Your task to perform on an android device: toggle sleep mode Image 0: 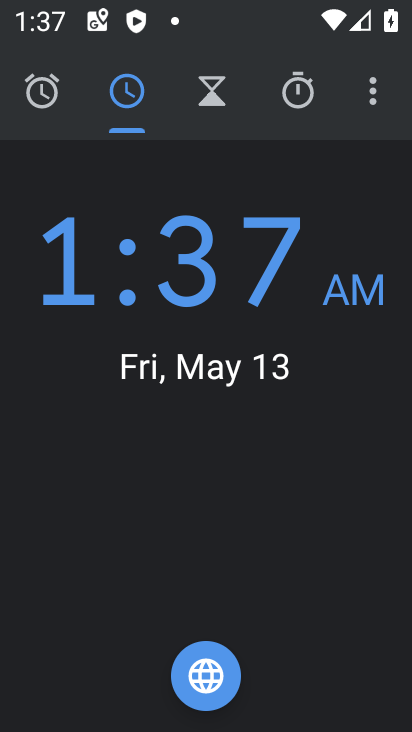
Step 0: drag from (293, 570) to (293, 155)
Your task to perform on an android device: toggle sleep mode Image 1: 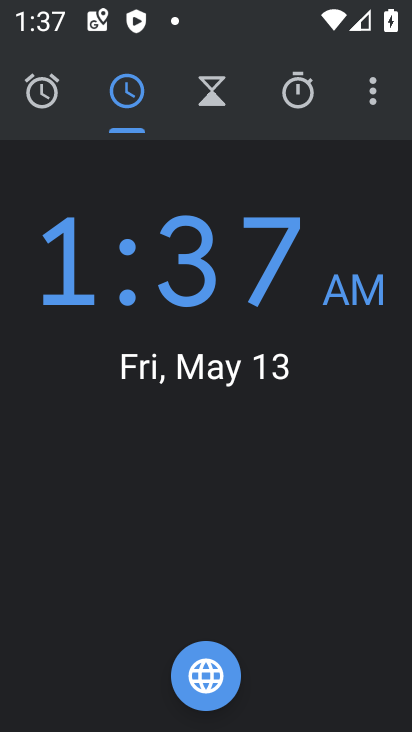
Step 1: press home button
Your task to perform on an android device: toggle sleep mode Image 2: 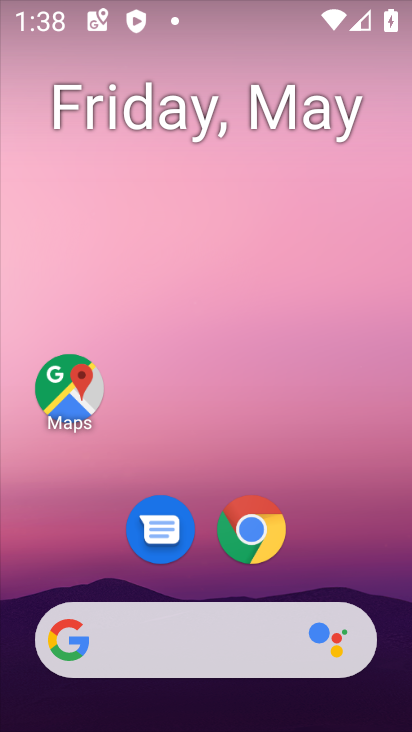
Step 2: drag from (312, 545) to (308, 70)
Your task to perform on an android device: toggle sleep mode Image 3: 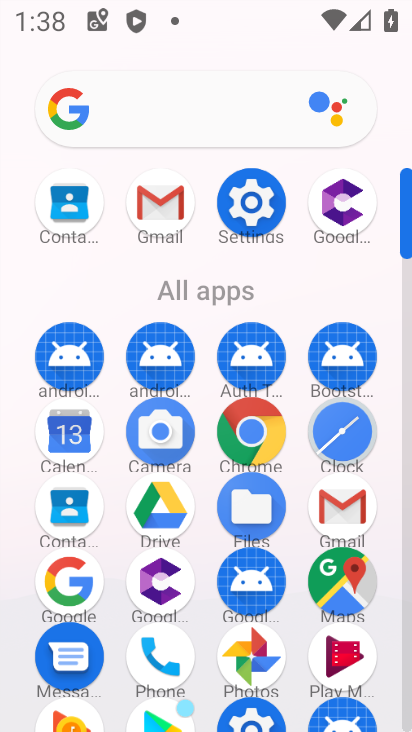
Step 3: click (232, 214)
Your task to perform on an android device: toggle sleep mode Image 4: 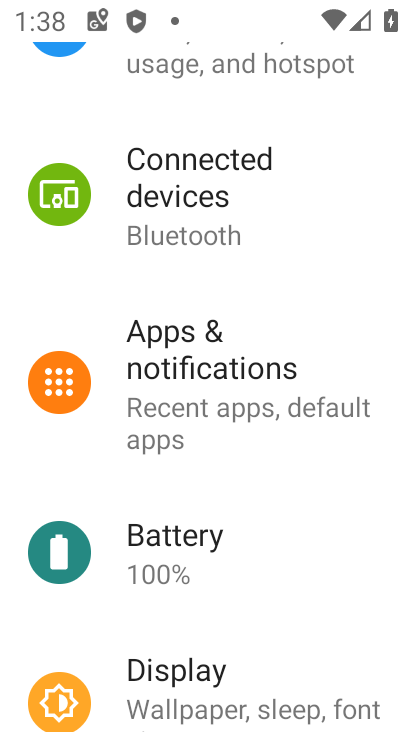
Step 4: task complete